Your task to perform on an android device: toggle priority inbox in the gmail app Image 0: 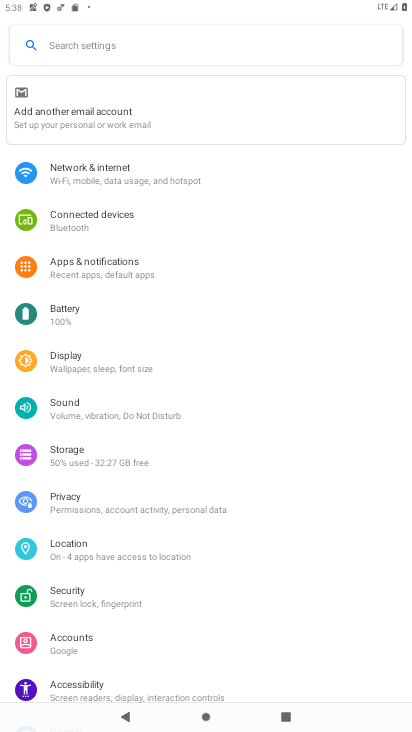
Step 0: press home button
Your task to perform on an android device: toggle priority inbox in the gmail app Image 1: 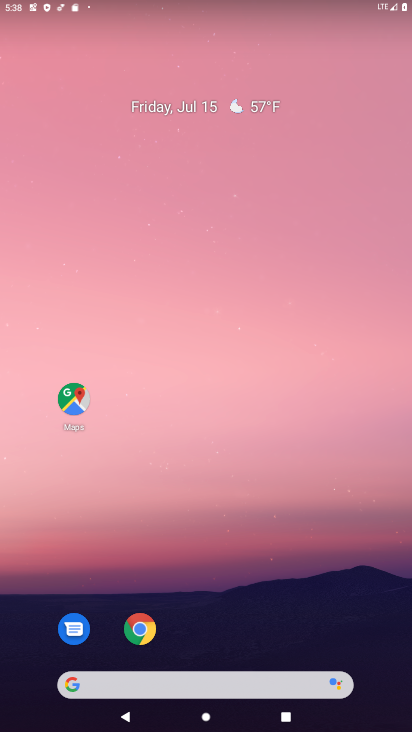
Step 1: drag from (203, 638) to (198, 116)
Your task to perform on an android device: toggle priority inbox in the gmail app Image 2: 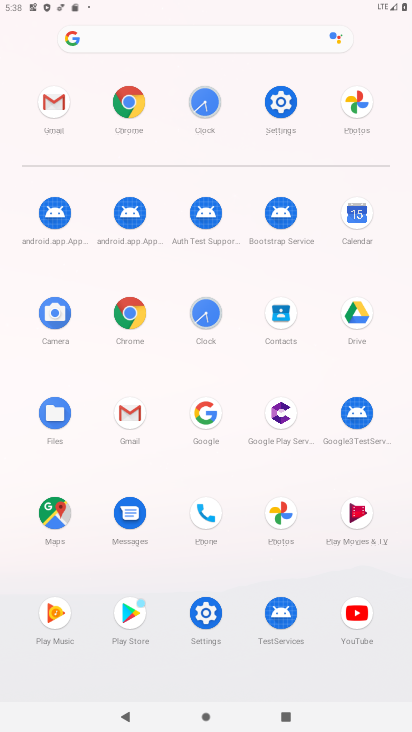
Step 2: click (53, 108)
Your task to perform on an android device: toggle priority inbox in the gmail app Image 3: 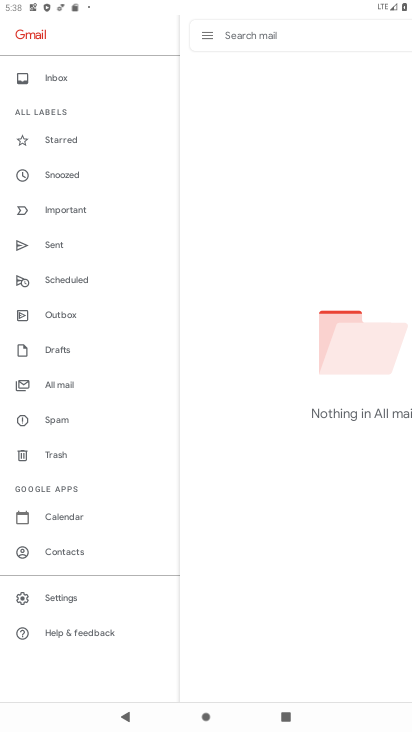
Step 3: click (65, 599)
Your task to perform on an android device: toggle priority inbox in the gmail app Image 4: 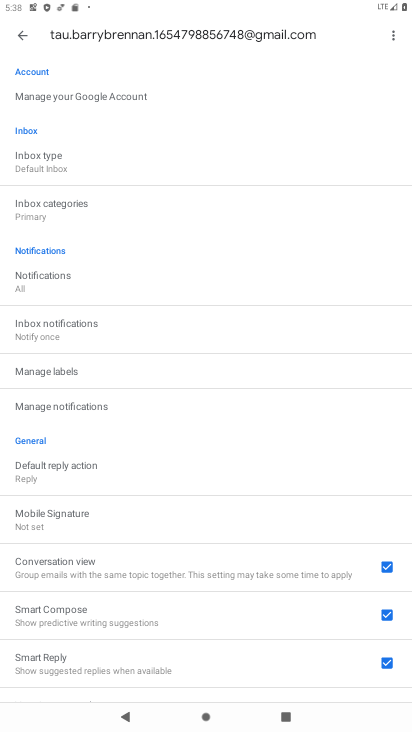
Step 4: click (40, 156)
Your task to perform on an android device: toggle priority inbox in the gmail app Image 5: 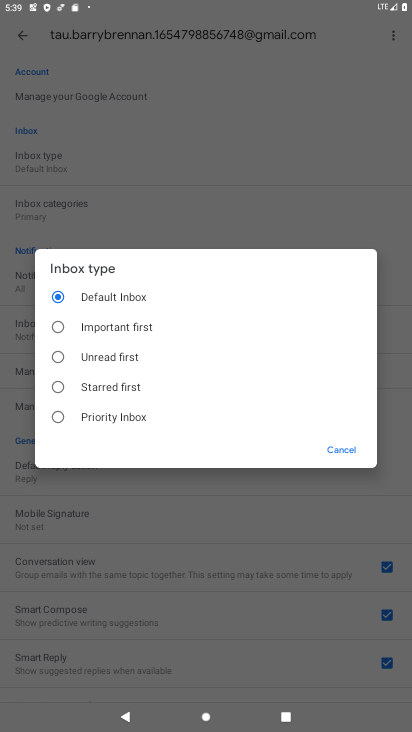
Step 5: click (56, 414)
Your task to perform on an android device: toggle priority inbox in the gmail app Image 6: 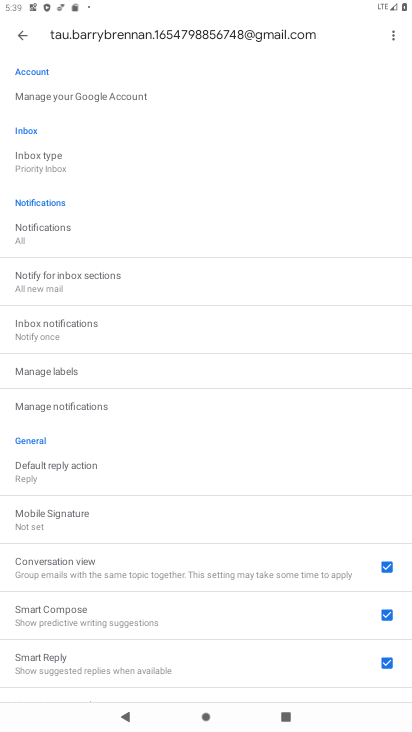
Step 6: task complete